Your task to perform on an android device: turn vacation reply on in the gmail app Image 0: 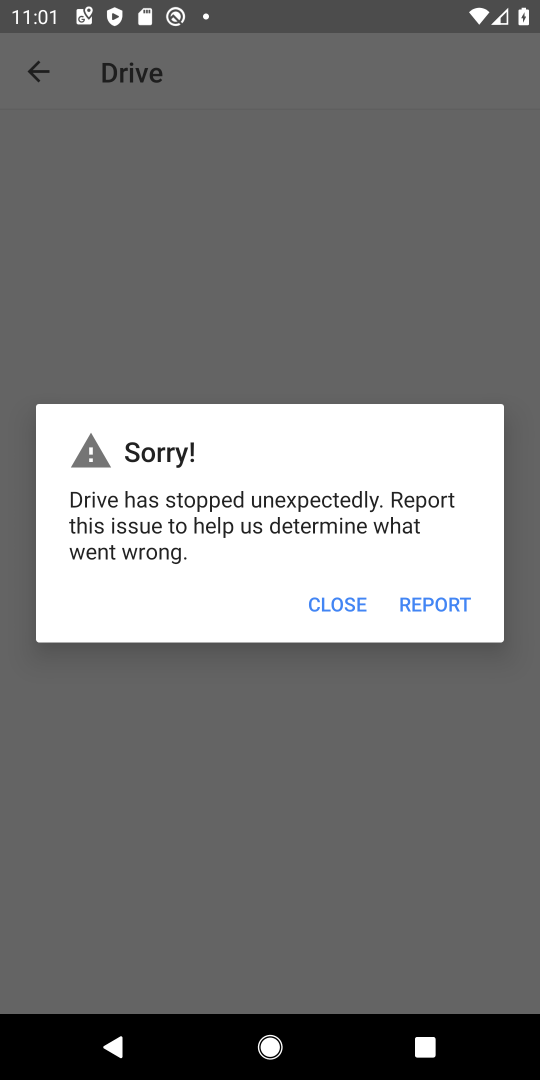
Step 0: task impossible